Your task to perform on an android device: check the backup settings in the google photos Image 0: 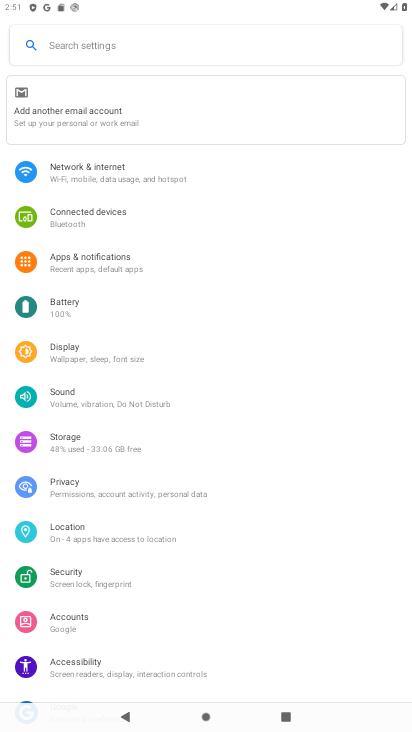
Step 0: press home button
Your task to perform on an android device: check the backup settings in the google photos Image 1: 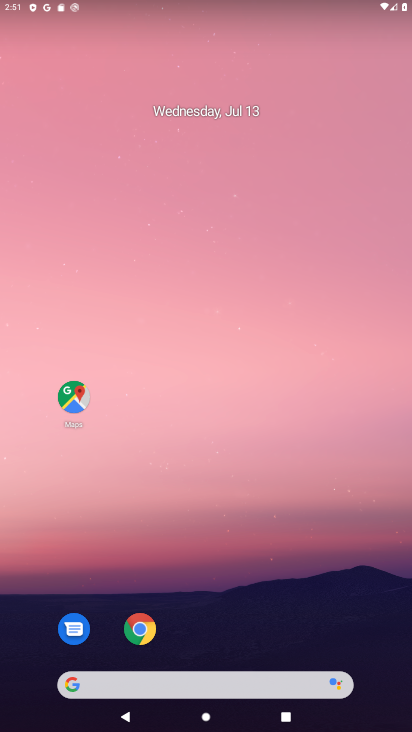
Step 1: drag from (250, 634) to (165, 57)
Your task to perform on an android device: check the backup settings in the google photos Image 2: 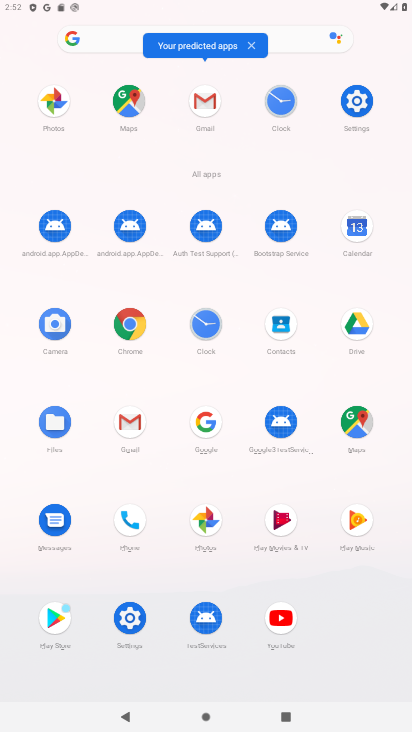
Step 2: click (57, 98)
Your task to perform on an android device: check the backup settings in the google photos Image 3: 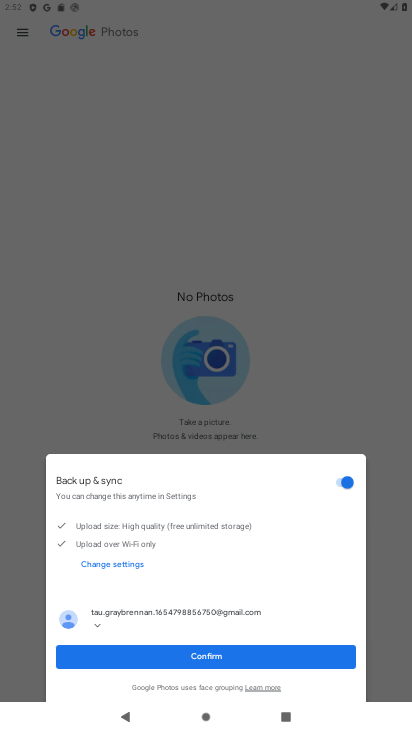
Step 3: click (230, 657)
Your task to perform on an android device: check the backup settings in the google photos Image 4: 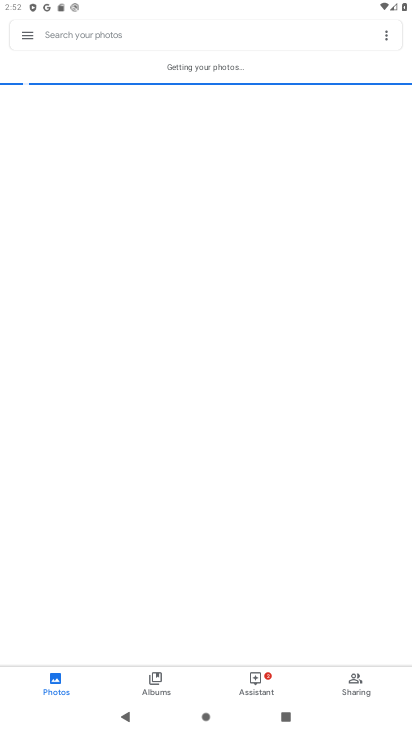
Step 4: click (28, 38)
Your task to perform on an android device: check the backup settings in the google photos Image 5: 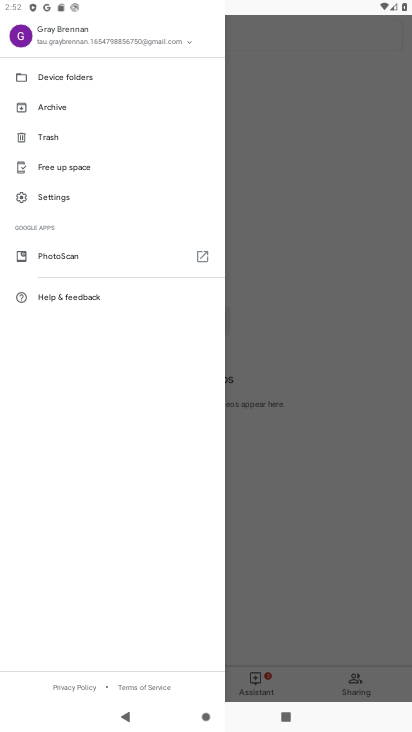
Step 5: click (76, 197)
Your task to perform on an android device: check the backup settings in the google photos Image 6: 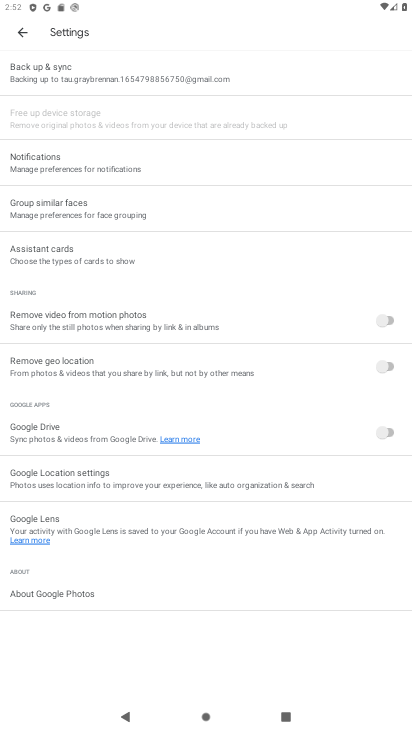
Step 6: click (110, 75)
Your task to perform on an android device: check the backup settings in the google photos Image 7: 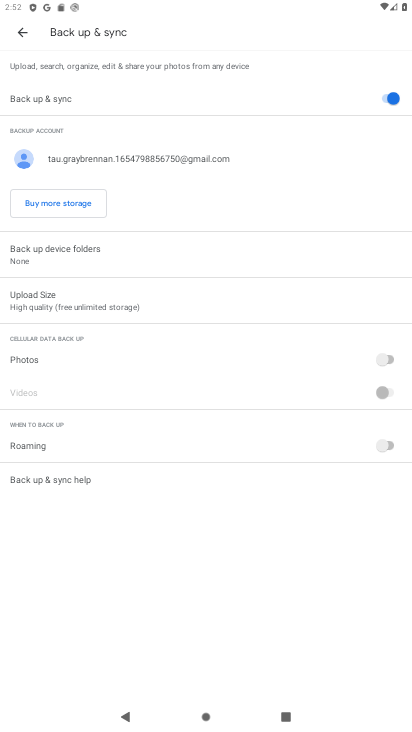
Step 7: task complete